Your task to perform on an android device: toggle priority inbox in the gmail app Image 0: 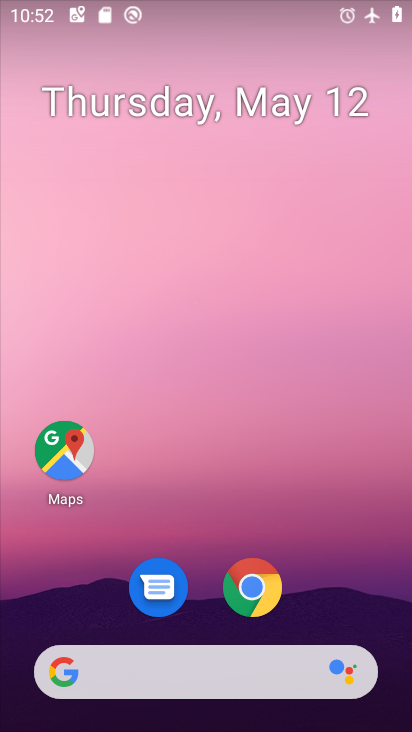
Step 0: drag from (384, 630) to (292, 82)
Your task to perform on an android device: toggle priority inbox in the gmail app Image 1: 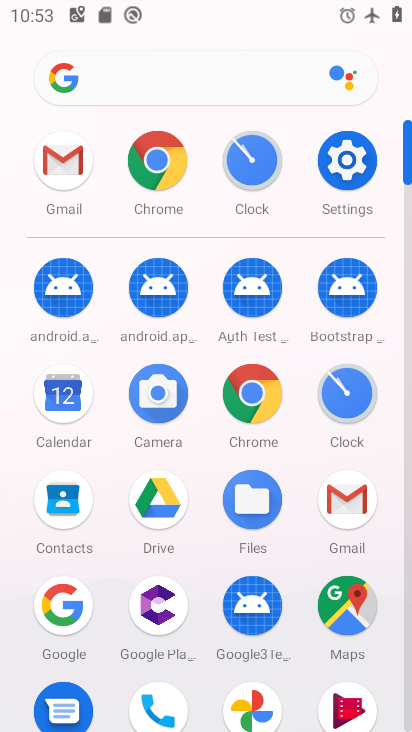
Step 1: click (345, 516)
Your task to perform on an android device: toggle priority inbox in the gmail app Image 2: 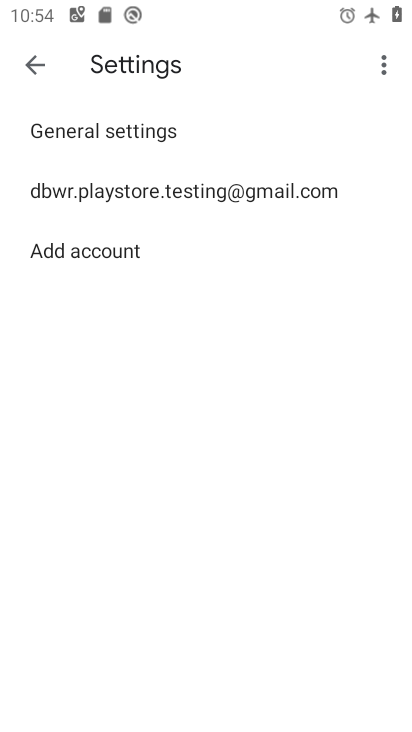
Step 2: click (186, 186)
Your task to perform on an android device: toggle priority inbox in the gmail app Image 3: 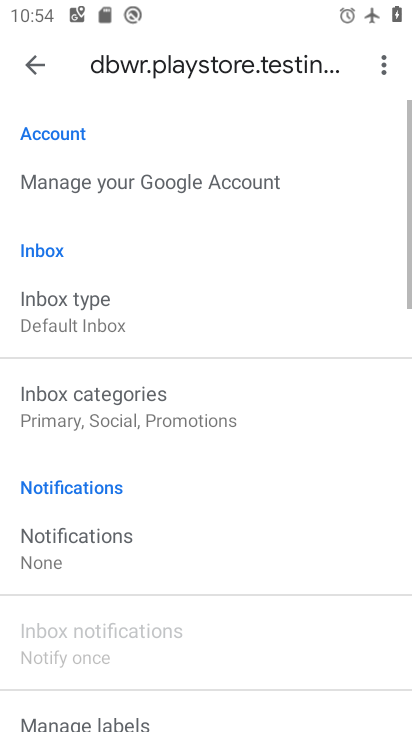
Step 3: click (107, 290)
Your task to perform on an android device: toggle priority inbox in the gmail app Image 4: 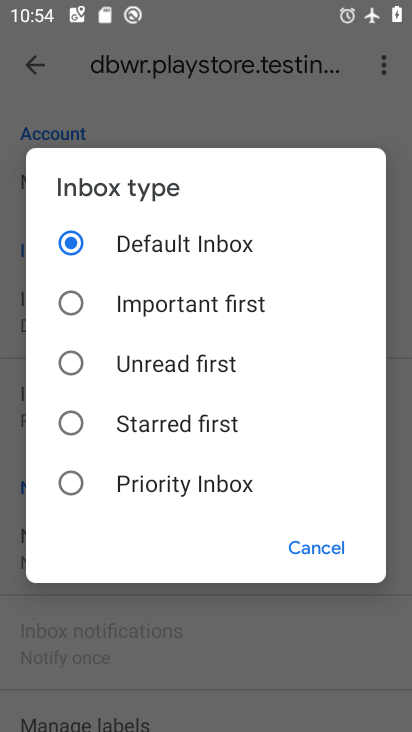
Step 4: click (152, 354)
Your task to perform on an android device: toggle priority inbox in the gmail app Image 5: 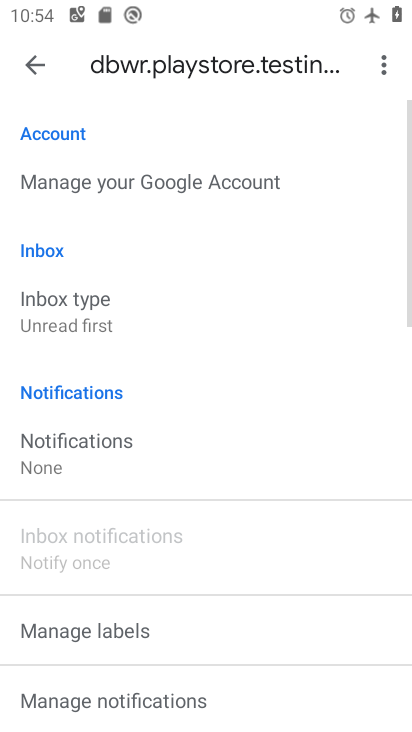
Step 5: task complete